Your task to perform on an android device: toggle improve location accuracy Image 0: 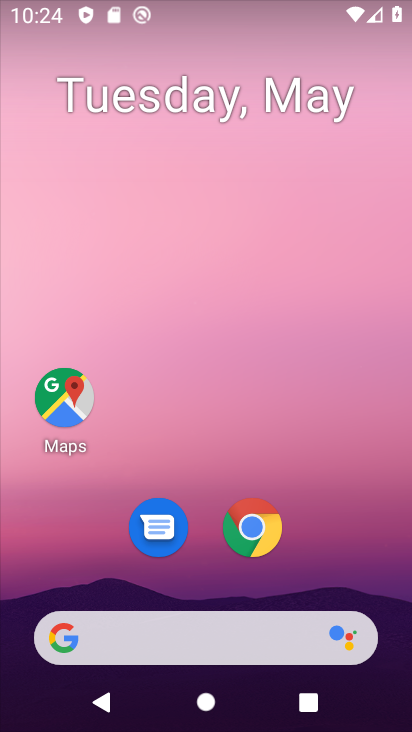
Step 0: drag from (193, 580) to (193, 64)
Your task to perform on an android device: toggle improve location accuracy Image 1: 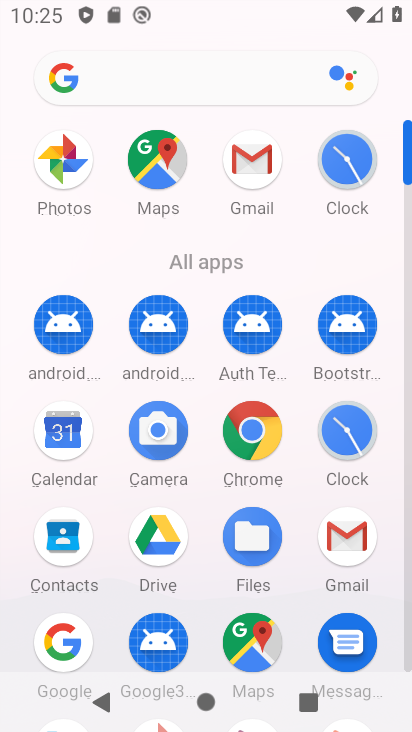
Step 1: drag from (202, 502) to (207, 120)
Your task to perform on an android device: toggle improve location accuracy Image 2: 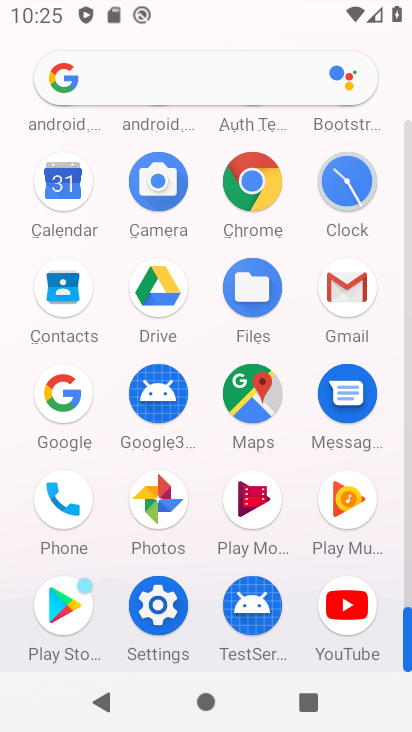
Step 2: click (152, 604)
Your task to perform on an android device: toggle improve location accuracy Image 3: 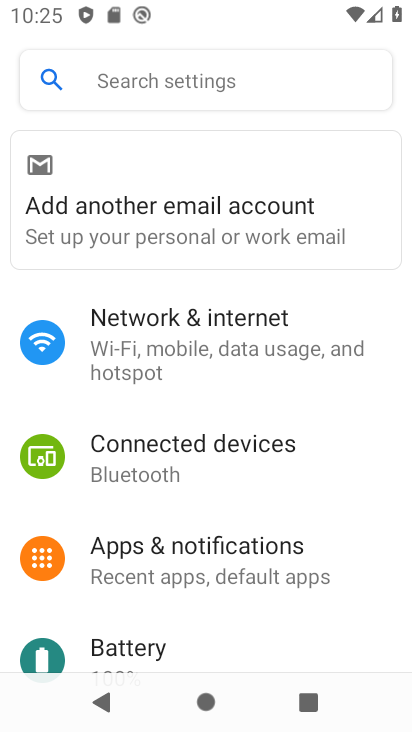
Step 3: drag from (216, 564) to (249, 49)
Your task to perform on an android device: toggle improve location accuracy Image 4: 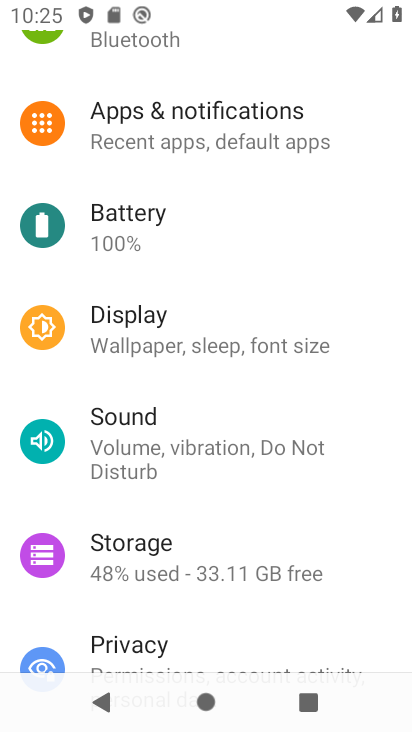
Step 4: drag from (207, 545) to (230, 178)
Your task to perform on an android device: toggle improve location accuracy Image 5: 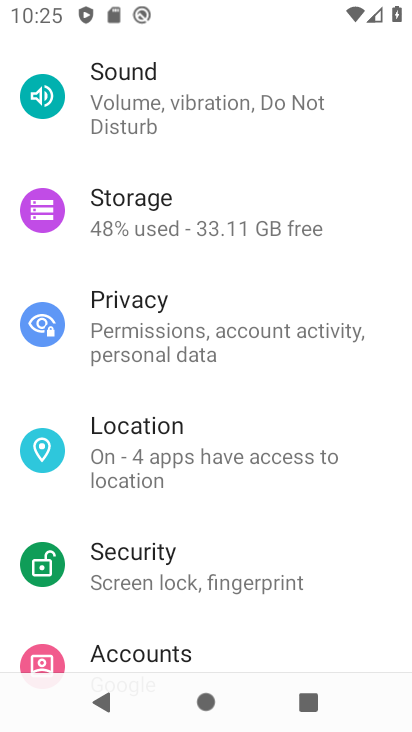
Step 5: click (166, 444)
Your task to perform on an android device: toggle improve location accuracy Image 6: 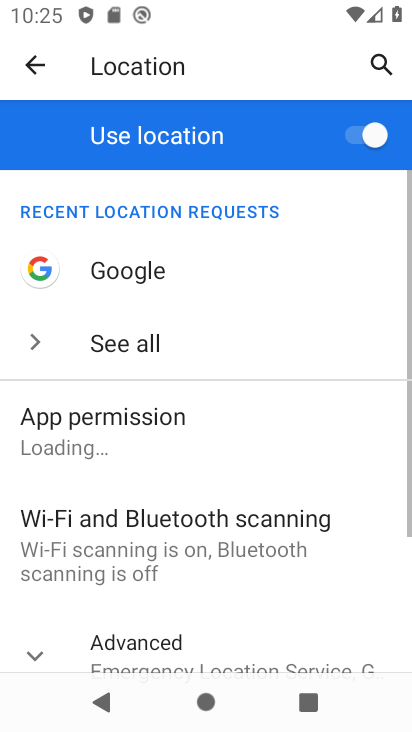
Step 6: drag from (230, 507) to (282, 135)
Your task to perform on an android device: toggle improve location accuracy Image 7: 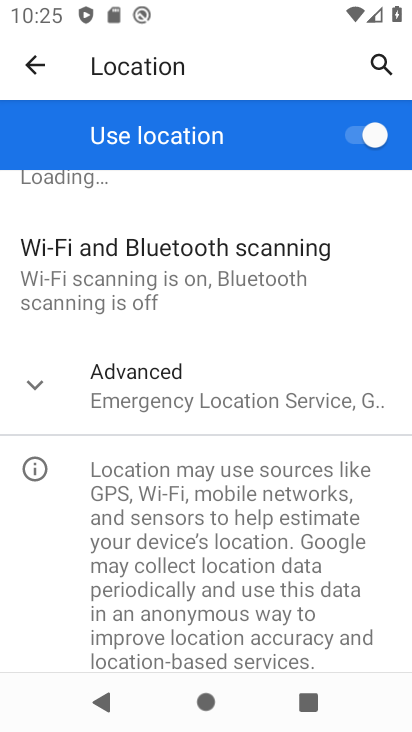
Step 7: drag from (194, 453) to (234, 334)
Your task to perform on an android device: toggle improve location accuracy Image 8: 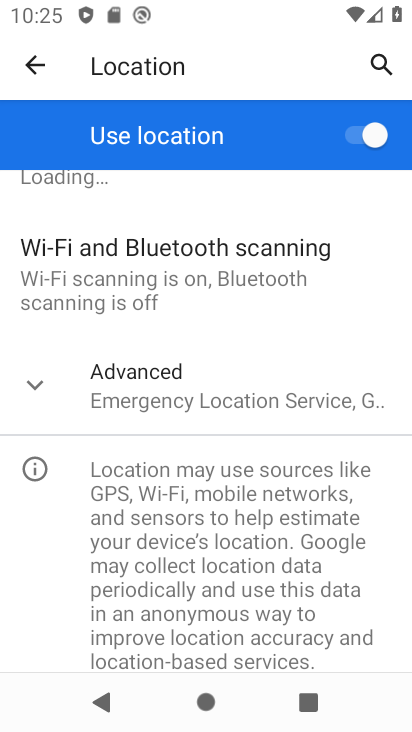
Step 8: click (177, 355)
Your task to perform on an android device: toggle improve location accuracy Image 9: 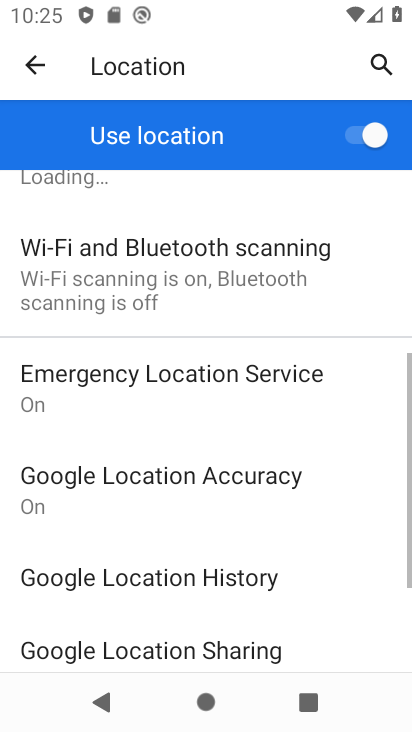
Step 9: drag from (193, 466) to (234, 256)
Your task to perform on an android device: toggle improve location accuracy Image 10: 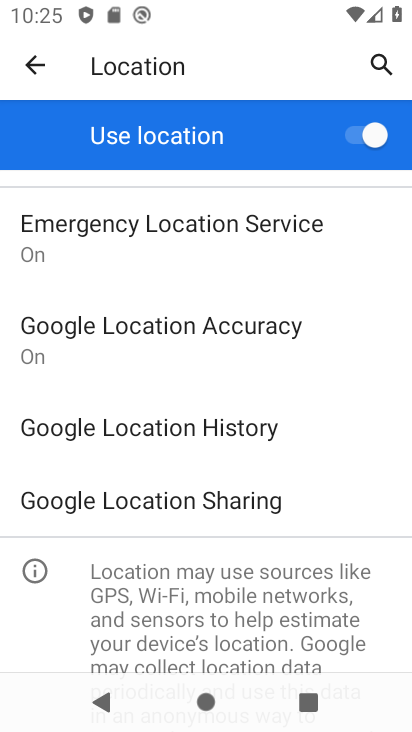
Step 10: click (163, 318)
Your task to perform on an android device: toggle improve location accuracy Image 11: 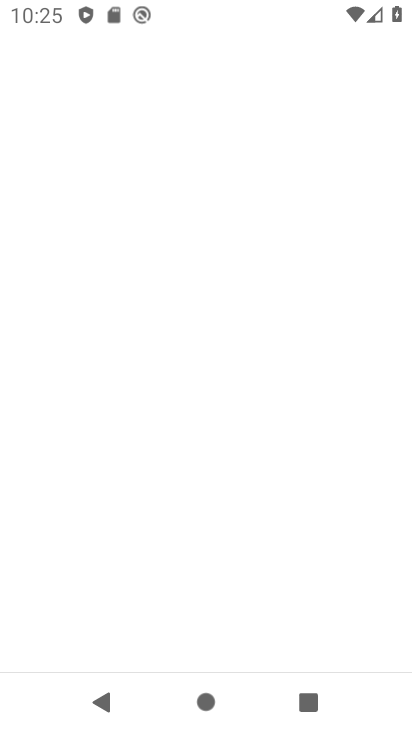
Step 11: drag from (229, 291) to (244, 214)
Your task to perform on an android device: toggle improve location accuracy Image 12: 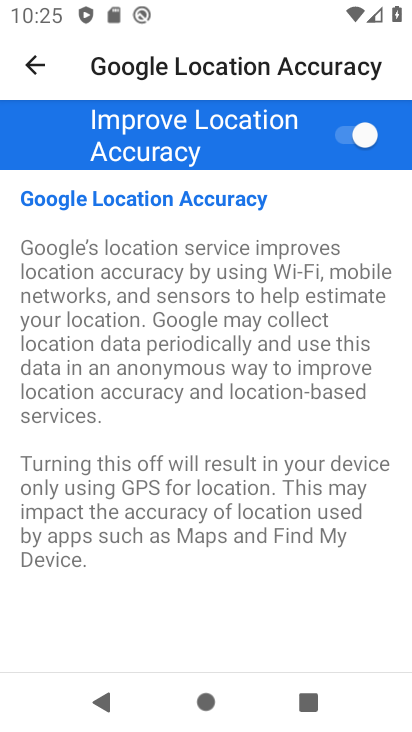
Step 12: drag from (183, 420) to (227, 167)
Your task to perform on an android device: toggle improve location accuracy Image 13: 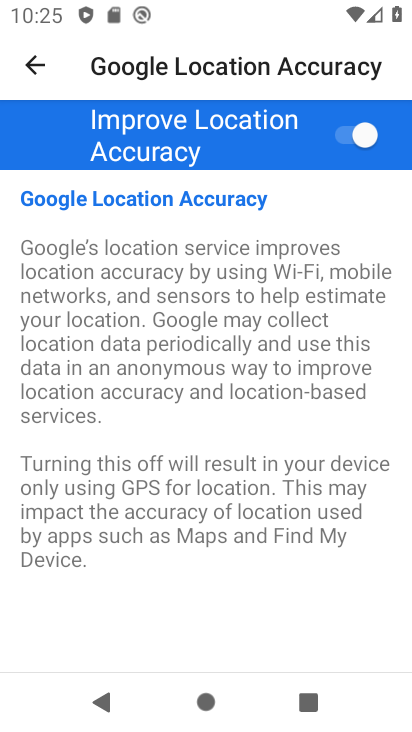
Step 13: drag from (197, 524) to (257, 212)
Your task to perform on an android device: toggle improve location accuracy Image 14: 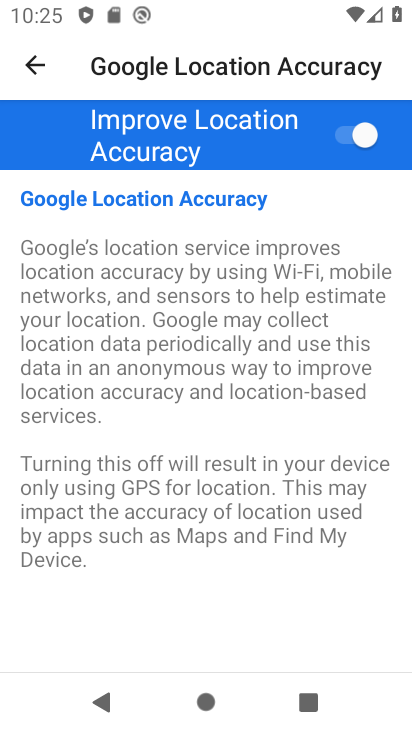
Step 14: click (362, 133)
Your task to perform on an android device: toggle improve location accuracy Image 15: 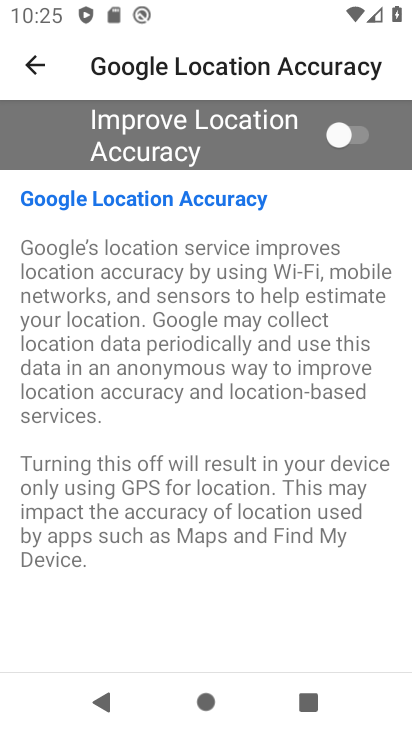
Step 15: task complete